Your task to perform on an android device: When is my next appointment? Image 0: 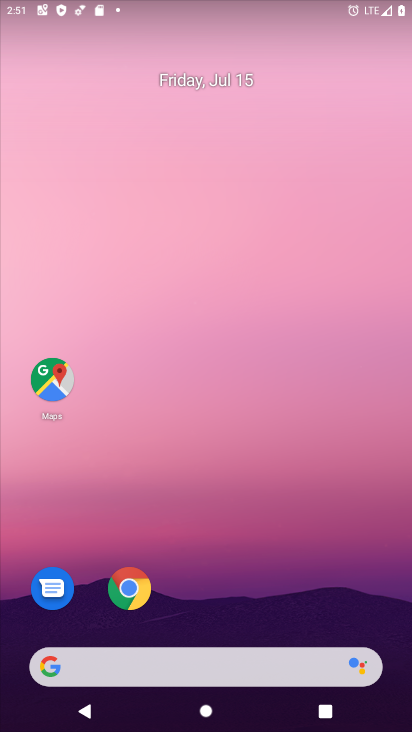
Step 0: drag from (144, 660) to (316, 156)
Your task to perform on an android device: When is my next appointment? Image 1: 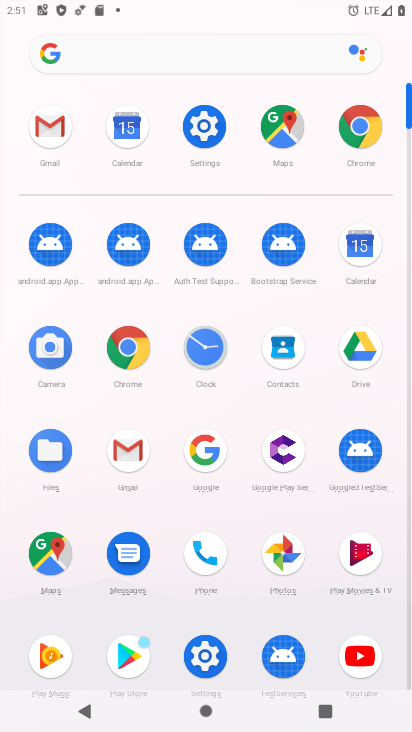
Step 1: click (360, 245)
Your task to perform on an android device: When is my next appointment? Image 2: 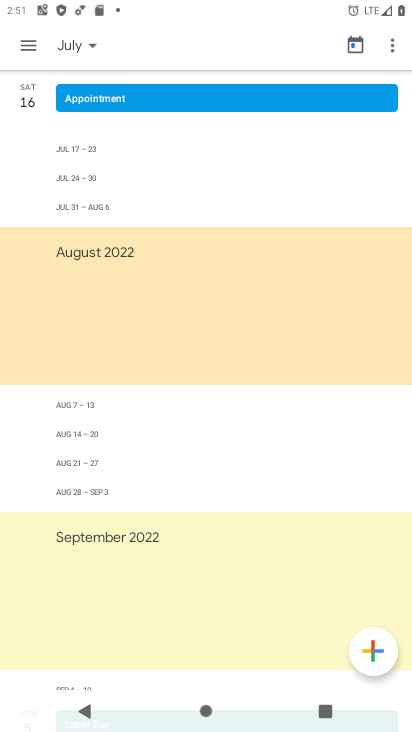
Step 2: click (358, 45)
Your task to perform on an android device: When is my next appointment? Image 3: 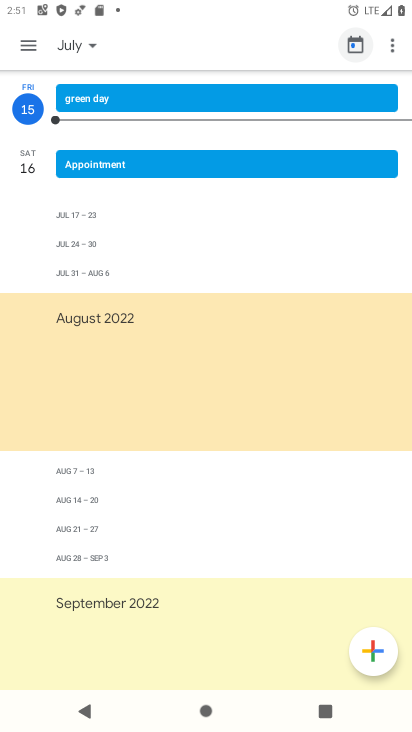
Step 3: click (358, 45)
Your task to perform on an android device: When is my next appointment? Image 4: 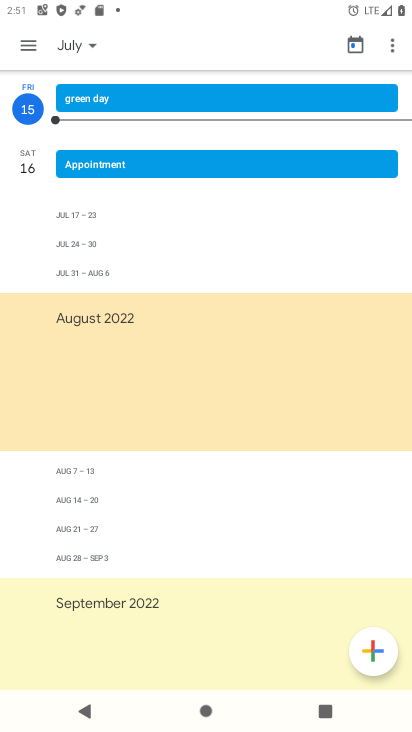
Step 4: click (88, 47)
Your task to perform on an android device: When is my next appointment? Image 5: 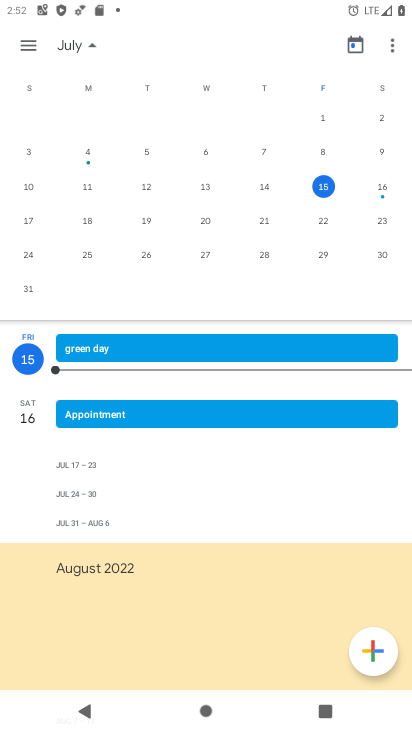
Step 5: click (381, 191)
Your task to perform on an android device: When is my next appointment? Image 6: 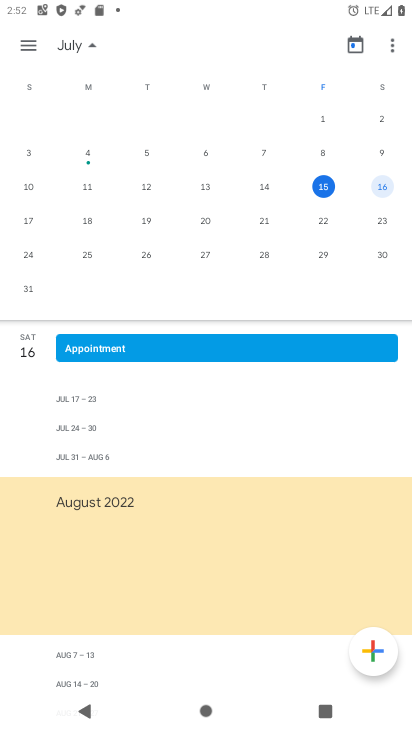
Step 6: click (29, 46)
Your task to perform on an android device: When is my next appointment? Image 7: 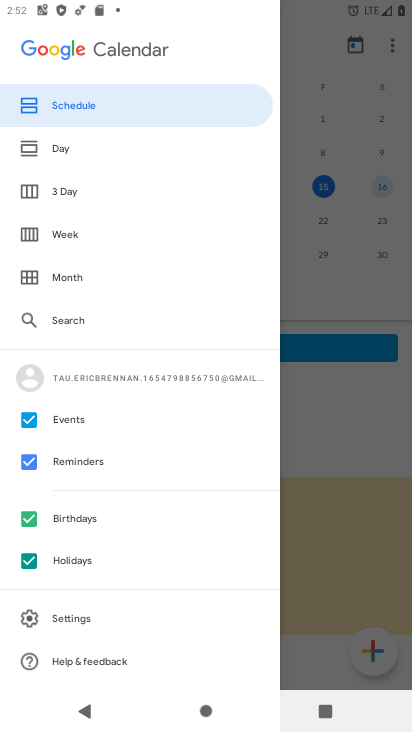
Step 7: click (48, 109)
Your task to perform on an android device: When is my next appointment? Image 8: 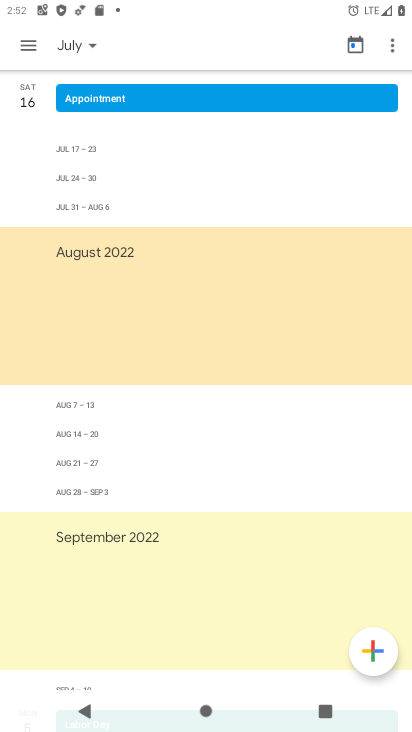
Step 8: task complete